Your task to perform on an android device: Open Chrome and go to the settings page Image 0: 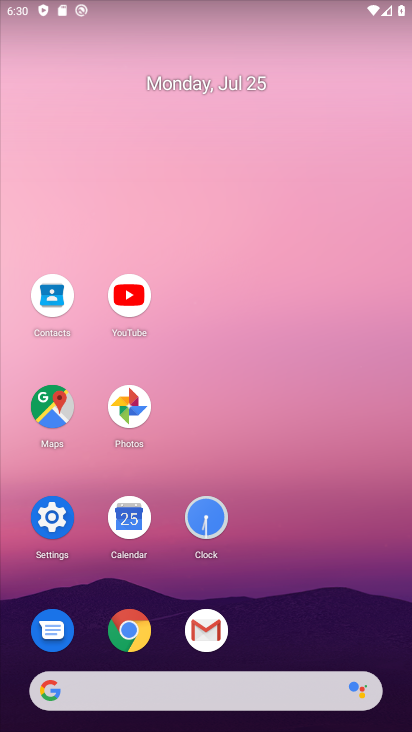
Step 0: click (122, 623)
Your task to perform on an android device: Open Chrome and go to the settings page Image 1: 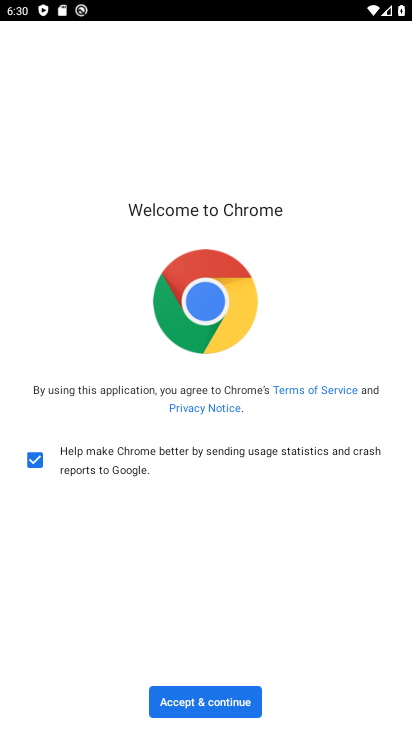
Step 1: click (211, 695)
Your task to perform on an android device: Open Chrome and go to the settings page Image 2: 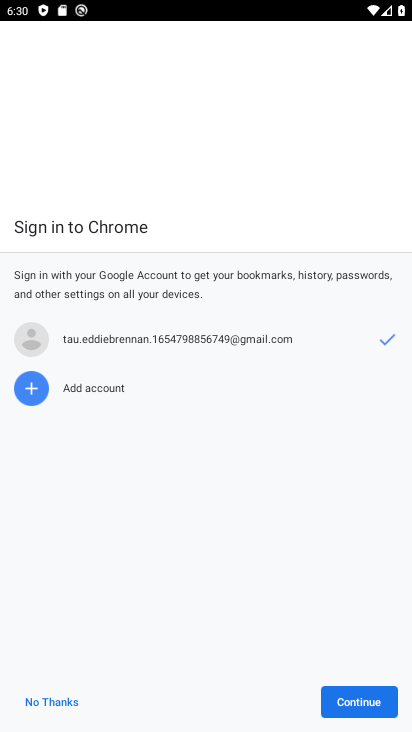
Step 2: click (349, 706)
Your task to perform on an android device: Open Chrome and go to the settings page Image 3: 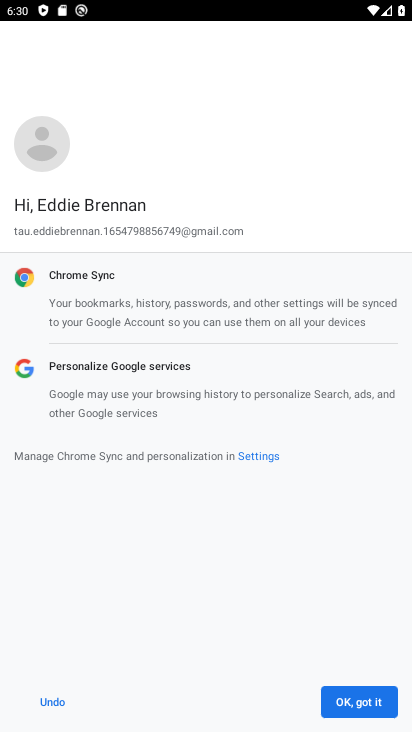
Step 3: click (349, 706)
Your task to perform on an android device: Open Chrome and go to the settings page Image 4: 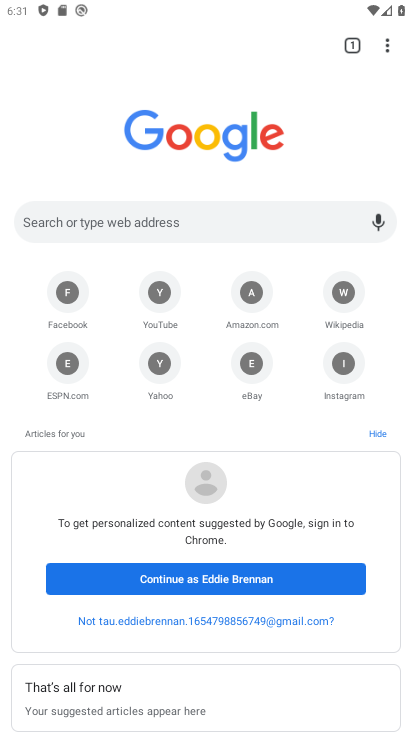
Step 4: click (393, 40)
Your task to perform on an android device: Open Chrome and go to the settings page Image 5: 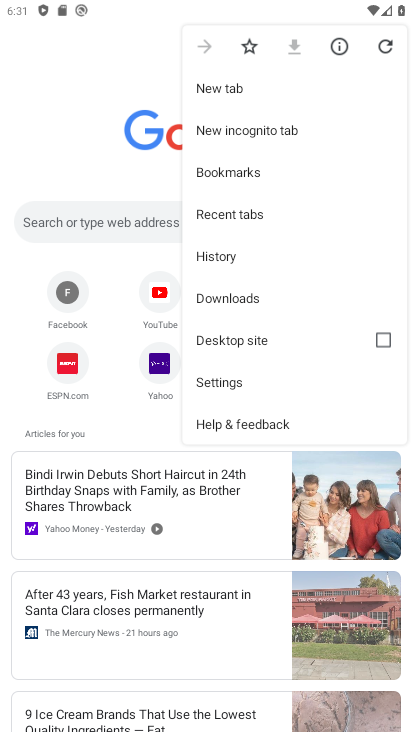
Step 5: click (222, 380)
Your task to perform on an android device: Open Chrome and go to the settings page Image 6: 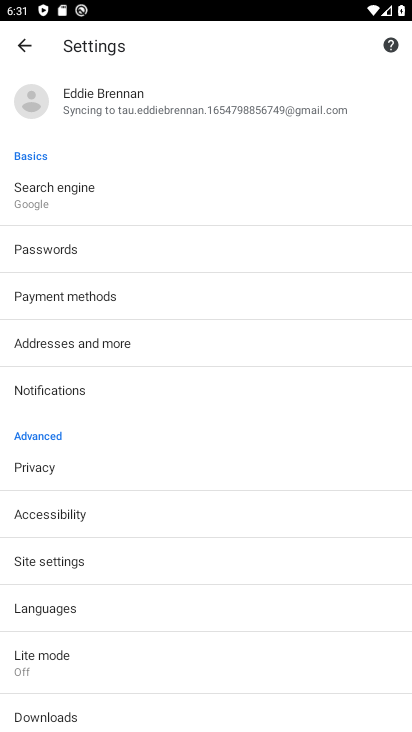
Step 6: task complete